Your task to perform on an android device: turn notification dots on Image 0: 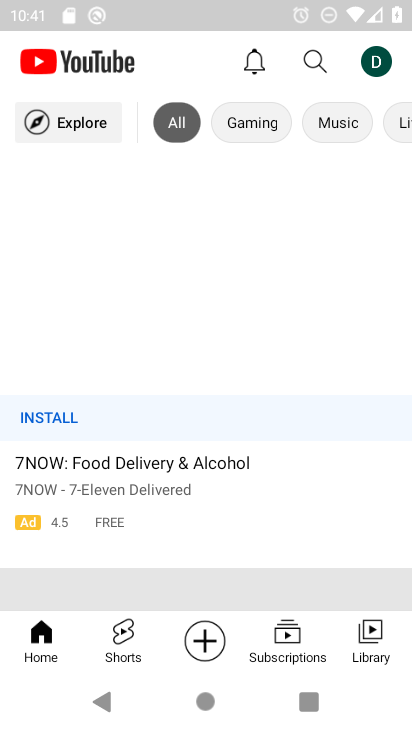
Step 0: press home button
Your task to perform on an android device: turn notification dots on Image 1: 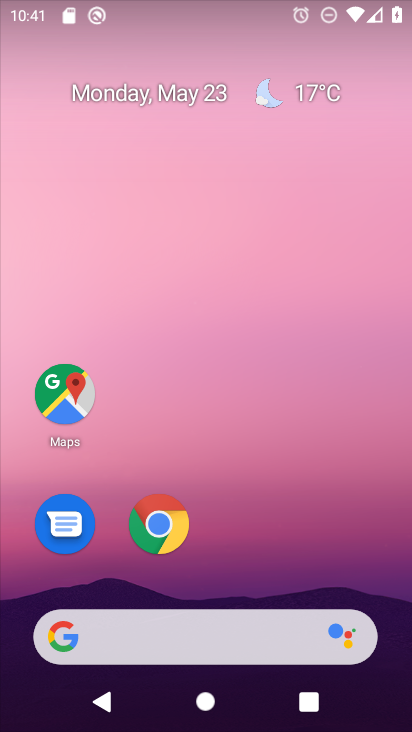
Step 1: drag from (229, 568) to (234, 115)
Your task to perform on an android device: turn notification dots on Image 2: 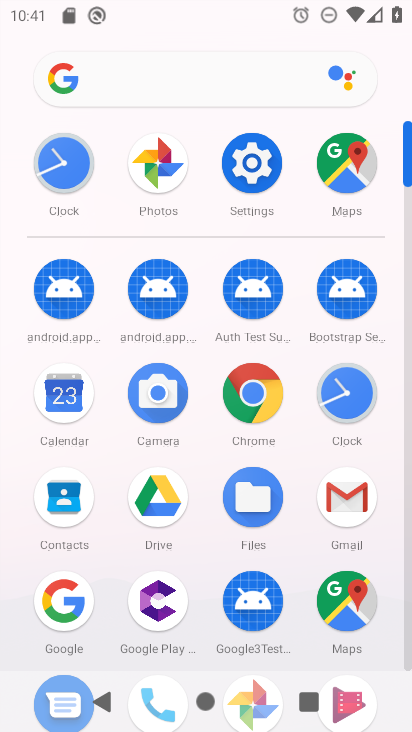
Step 2: click (245, 166)
Your task to perform on an android device: turn notification dots on Image 3: 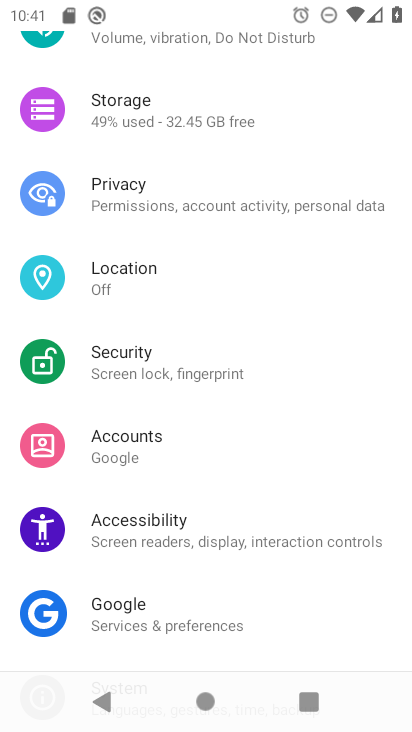
Step 3: drag from (244, 169) to (236, 435)
Your task to perform on an android device: turn notification dots on Image 4: 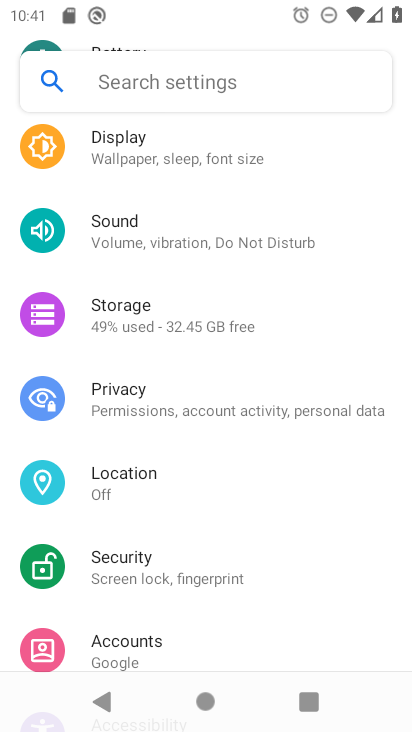
Step 4: drag from (223, 194) to (223, 460)
Your task to perform on an android device: turn notification dots on Image 5: 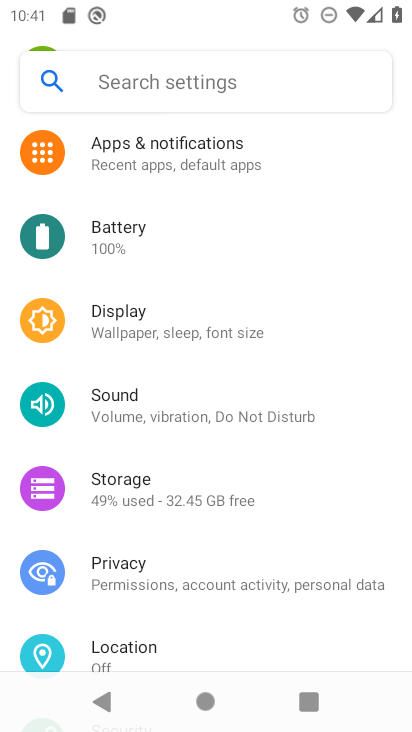
Step 5: click (148, 160)
Your task to perform on an android device: turn notification dots on Image 6: 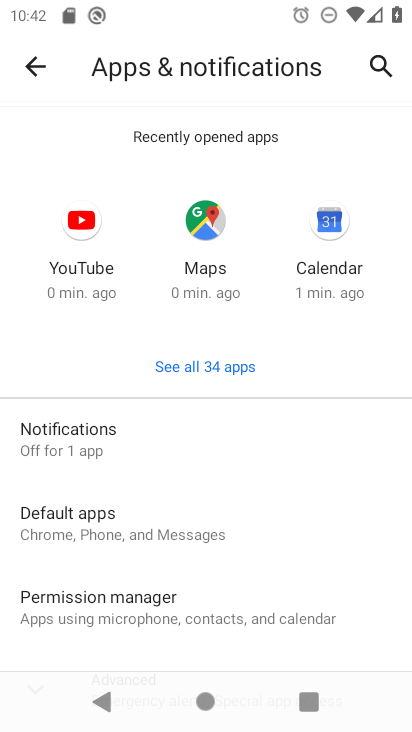
Step 6: click (138, 439)
Your task to perform on an android device: turn notification dots on Image 7: 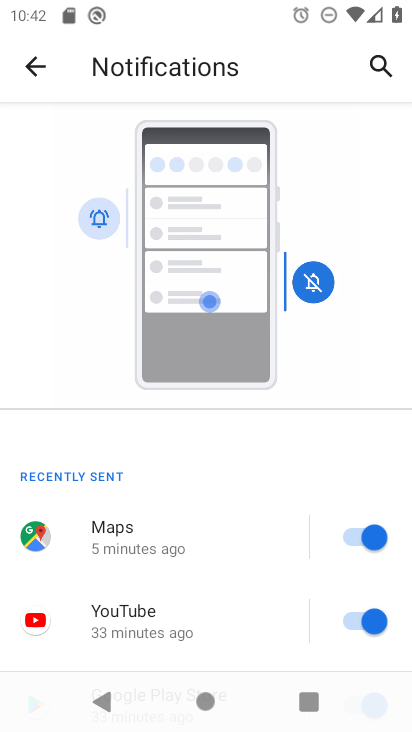
Step 7: drag from (187, 616) to (208, 180)
Your task to perform on an android device: turn notification dots on Image 8: 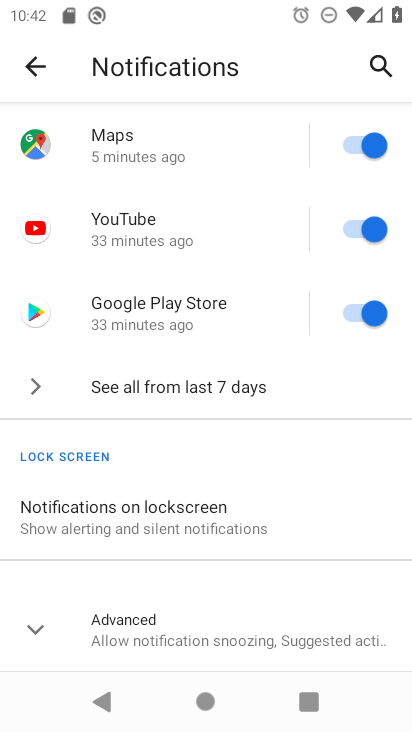
Step 8: click (201, 619)
Your task to perform on an android device: turn notification dots on Image 9: 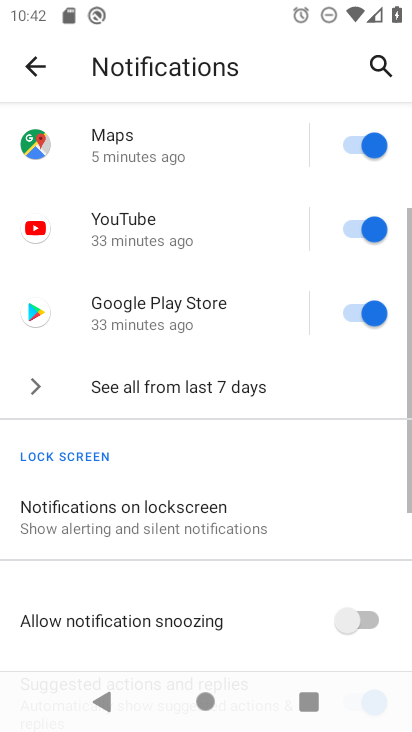
Step 9: task complete